Your task to perform on an android device: open wifi settings Image 0: 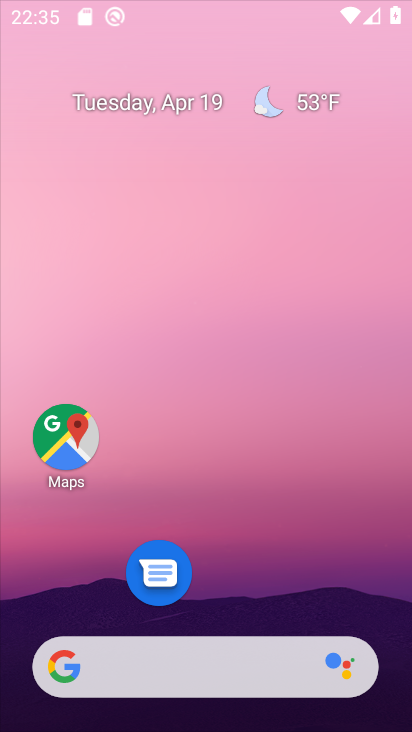
Step 0: drag from (228, 559) to (224, 18)
Your task to perform on an android device: open wifi settings Image 1: 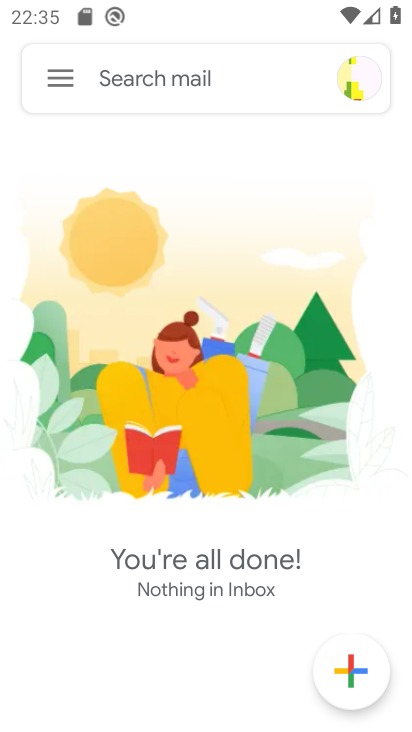
Step 1: press home button
Your task to perform on an android device: open wifi settings Image 2: 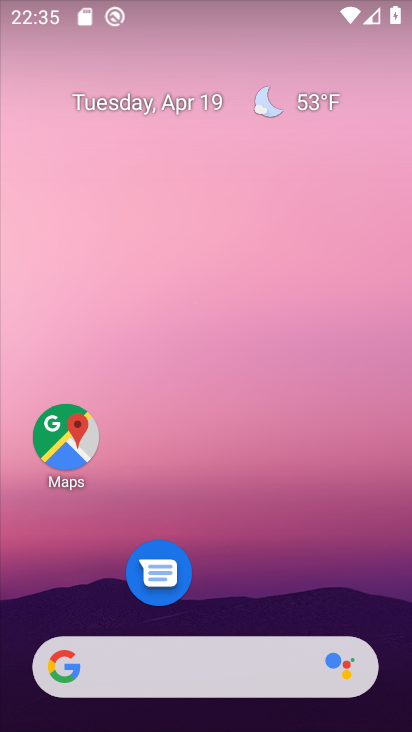
Step 2: drag from (218, 570) to (206, 45)
Your task to perform on an android device: open wifi settings Image 3: 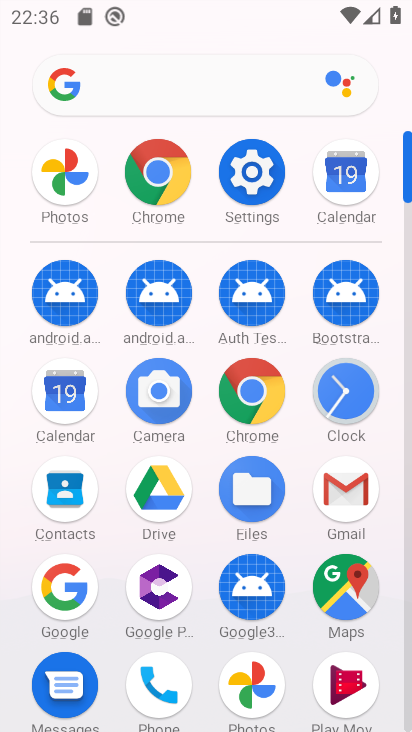
Step 3: click (251, 167)
Your task to perform on an android device: open wifi settings Image 4: 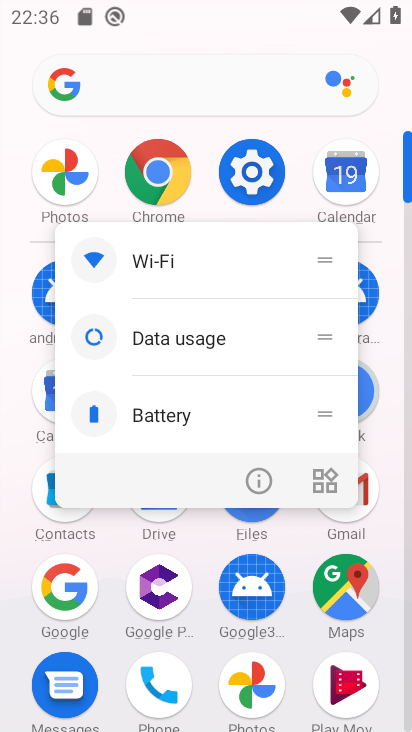
Step 4: click (251, 167)
Your task to perform on an android device: open wifi settings Image 5: 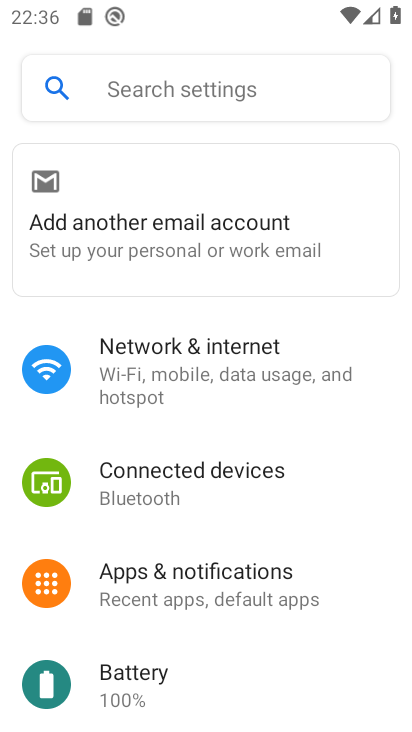
Step 5: click (81, 363)
Your task to perform on an android device: open wifi settings Image 6: 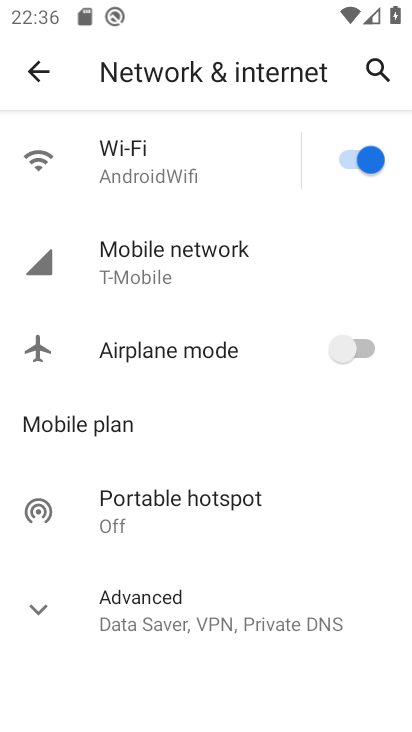
Step 6: click (228, 154)
Your task to perform on an android device: open wifi settings Image 7: 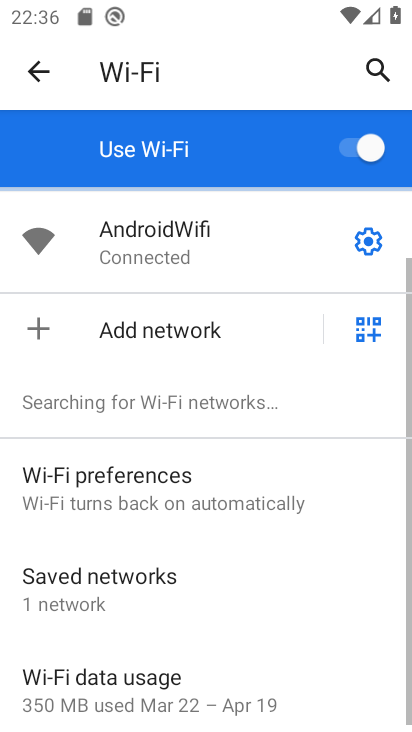
Step 7: task complete